Your task to perform on an android device: stop showing notifications on the lock screen Image 0: 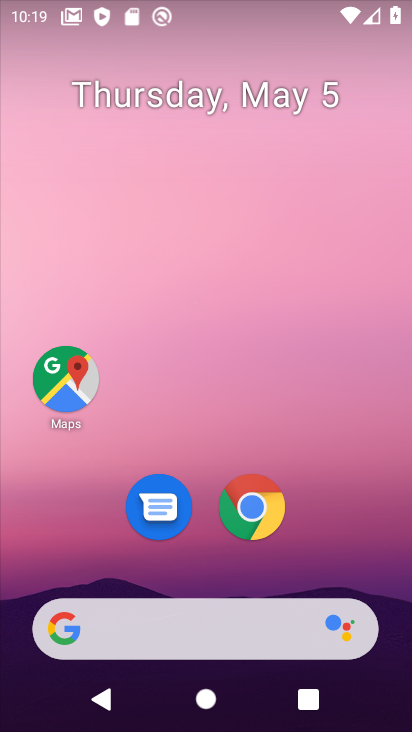
Step 0: drag from (350, 580) to (377, 27)
Your task to perform on an android device: stop showing notifications on the lock screen Image 1: 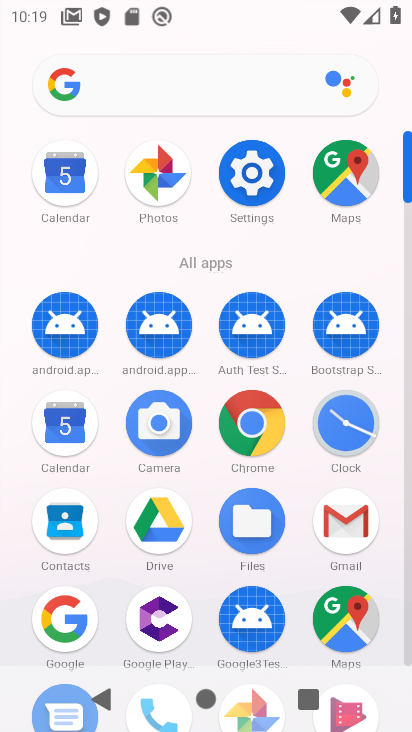
Step 1: click (253, 172)
Your task to perform on an android device: stop showing notifications on the lock screen Image 2: 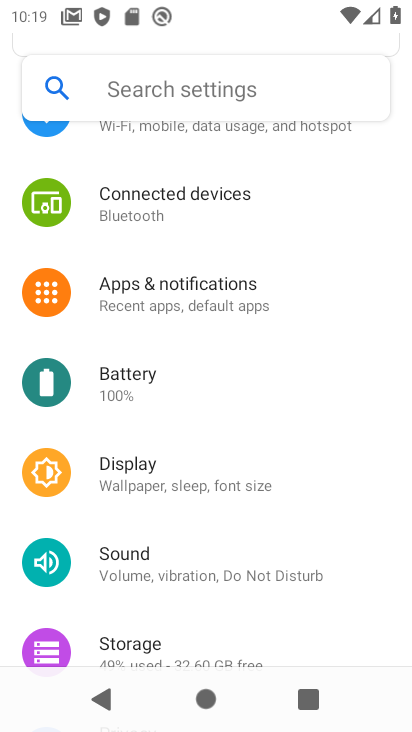
Step 2: click (131, 303)
Your task to perform on an android device: stop showing notifications on the lock screen Image 3: 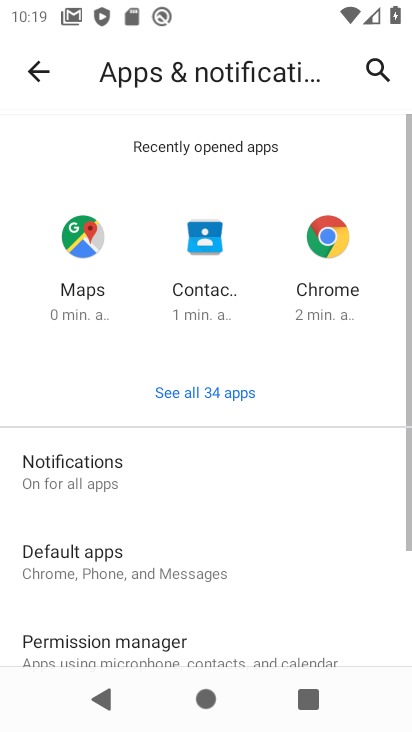
Step 3: click (82, 473)
Your task to perform on an android device: stop showing notifications on the lock screen Image 4: 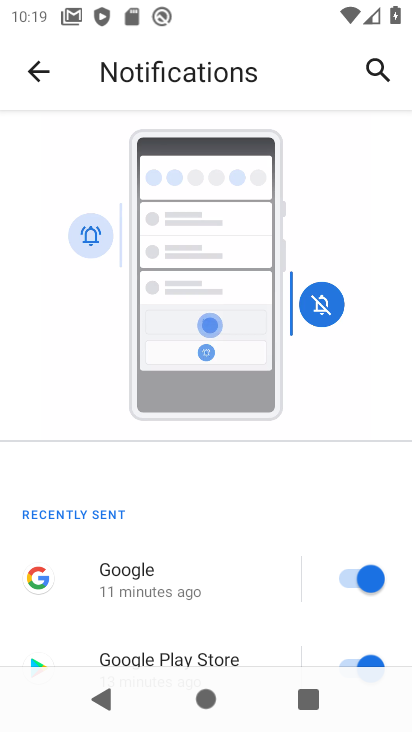
Step 4: drag from (214, 588) to (230, 207)
Your task to perform on an android device: stop showing notifications on the lock screen Image 5: 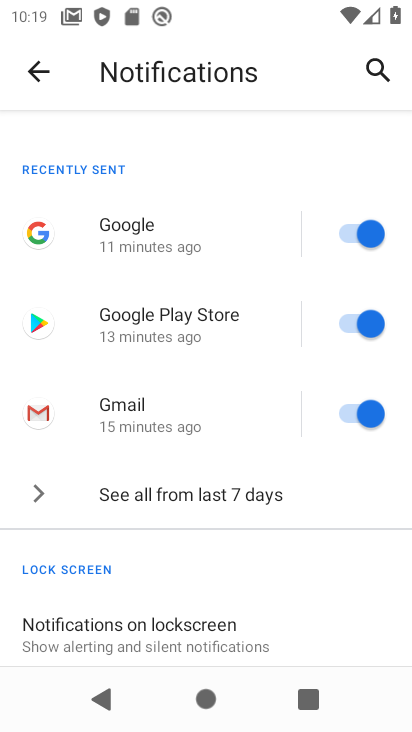
Step 5: drag from (168, 484) to (180, 207)
Your task to perform on an android device: stop showing notifications on the lock screen Image 6: 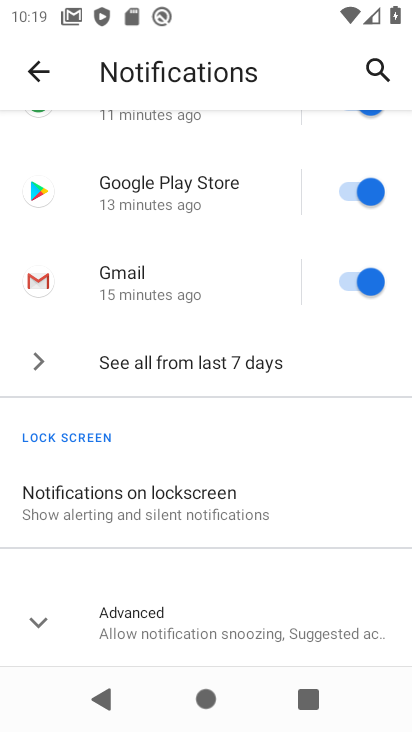
Step 6: click (110, 512)
Your task to perform on an android device: stop showing notifications on the lock screen Image 7: 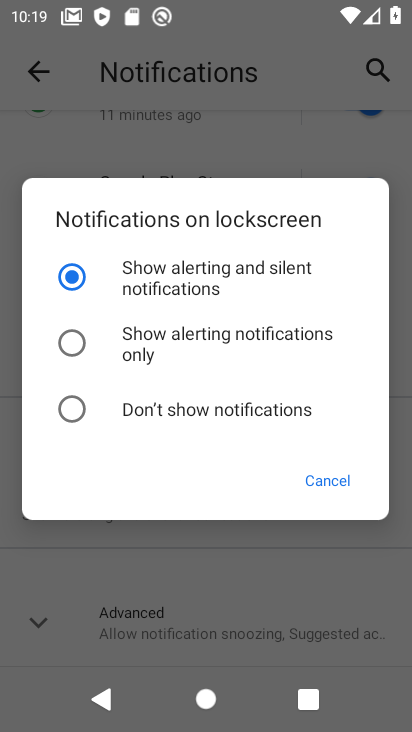
Step 7: click (63, 416)
Your task to perform on an android device: stop showing notifications on the lock screen Image 8: 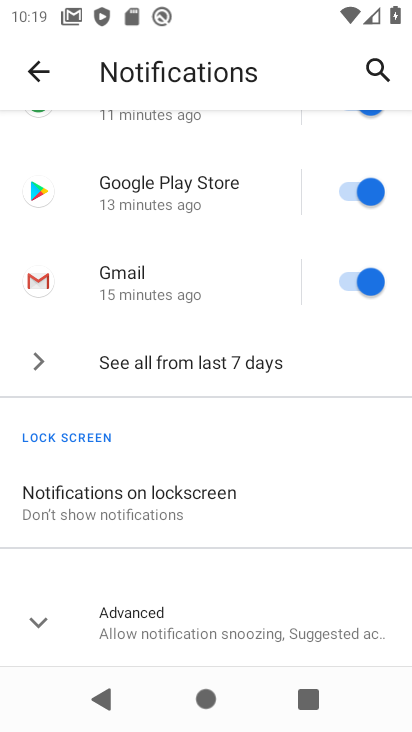
Step 8: task complete